Your task to perform on an android device: Open maps Image 0: 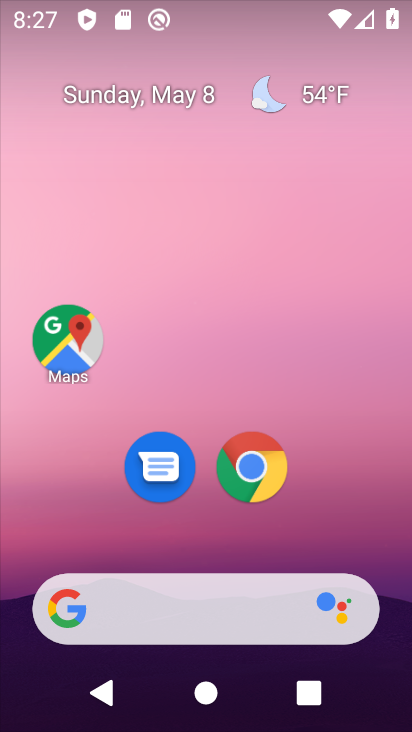
Step 0: click (66, 339)
Your task to perform on an android device: Open maps Image 1: 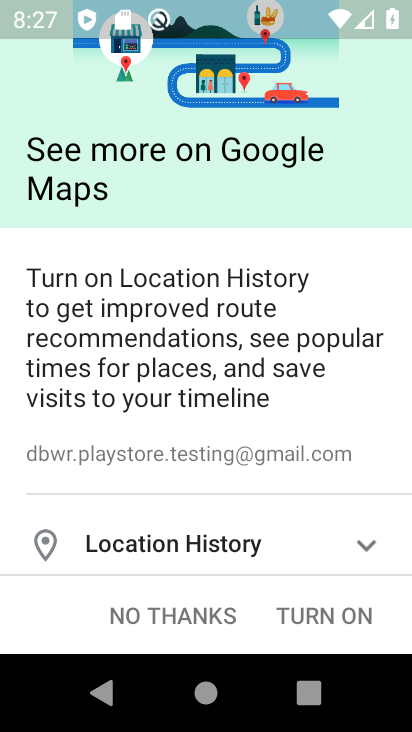
Step 1: click (163, 616)
Your task to perform on an android device: Open maps Image 2: 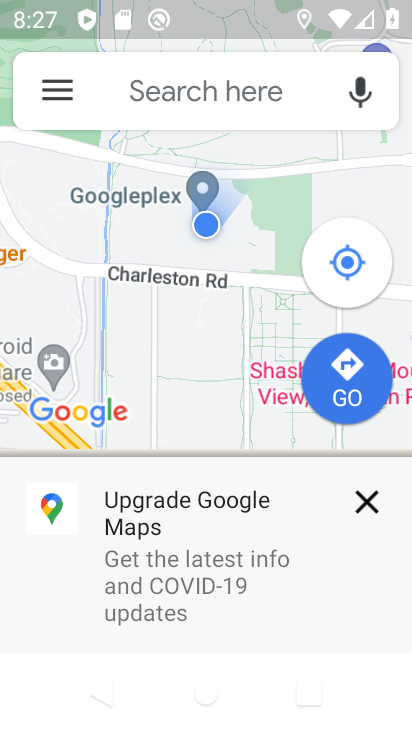
Step 2: click (365, 498)
Your task to perform on an android device: Open maps Image 3: 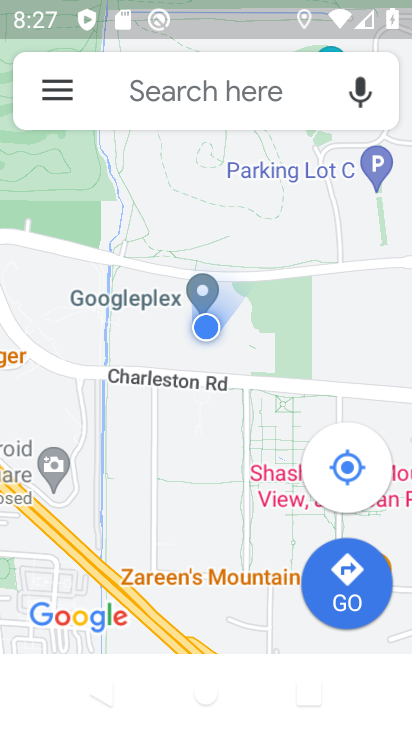
Step 3: task complete